Your task to perform on an android device: see tabs open on other devices in the chrome app Image 0: 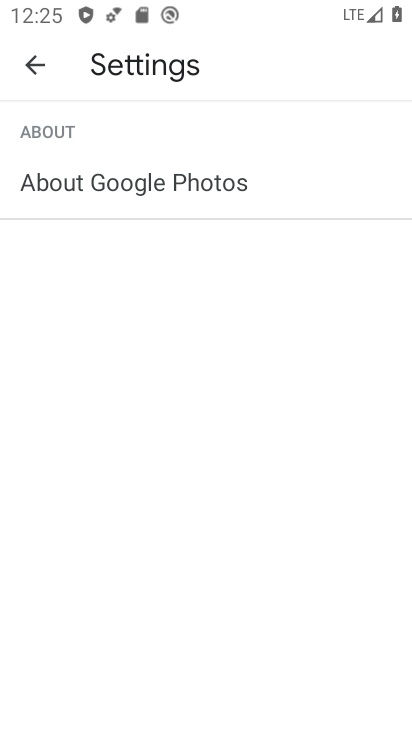
Step 0: press home button
Your task to perform on an android device: see tabs open on other devices in the chrome app Image 1: 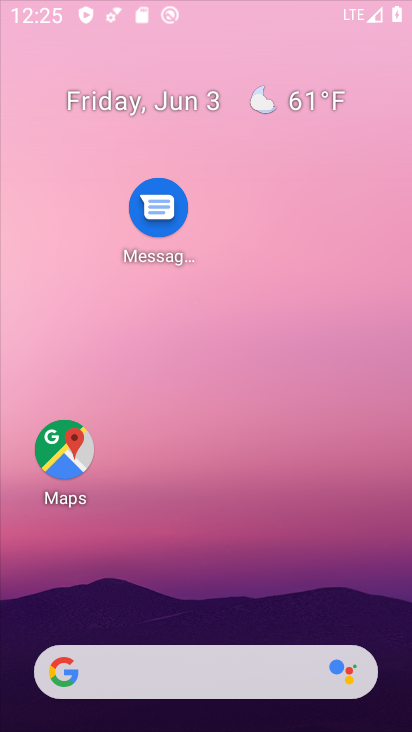
Step 1: drag from (197, 431) to (203, 15)
Your task to perform on an android device: see tabs open on other devices in the chrome app Image 2: 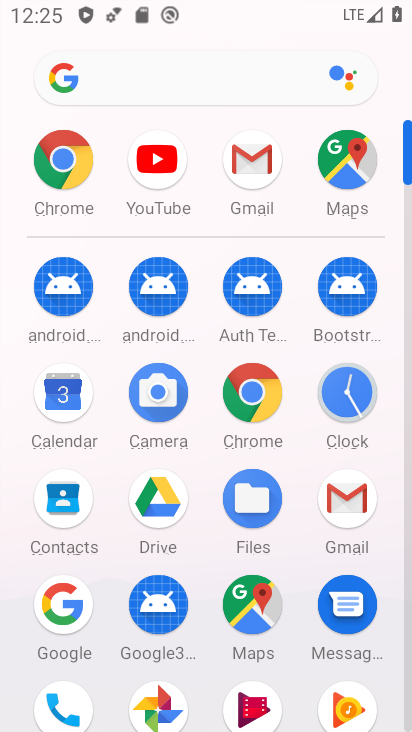
Step 2: click (259, 400)
Your task to perform on an android device: see tabs open on other devices in the chrome app Image 3: 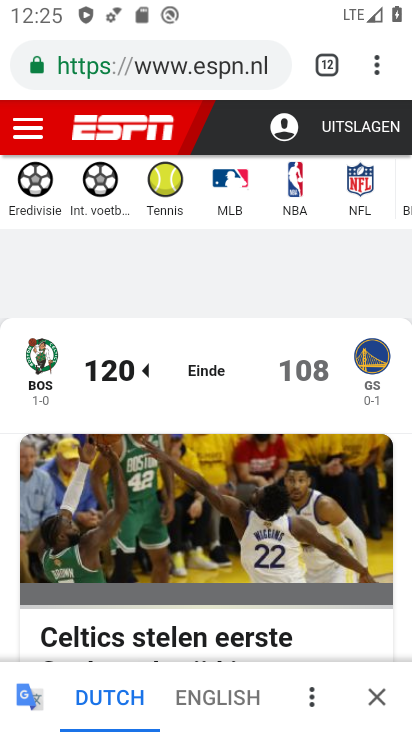
Step 3: task complete